Your task to perform on an android device: Open the web browser Image 0: 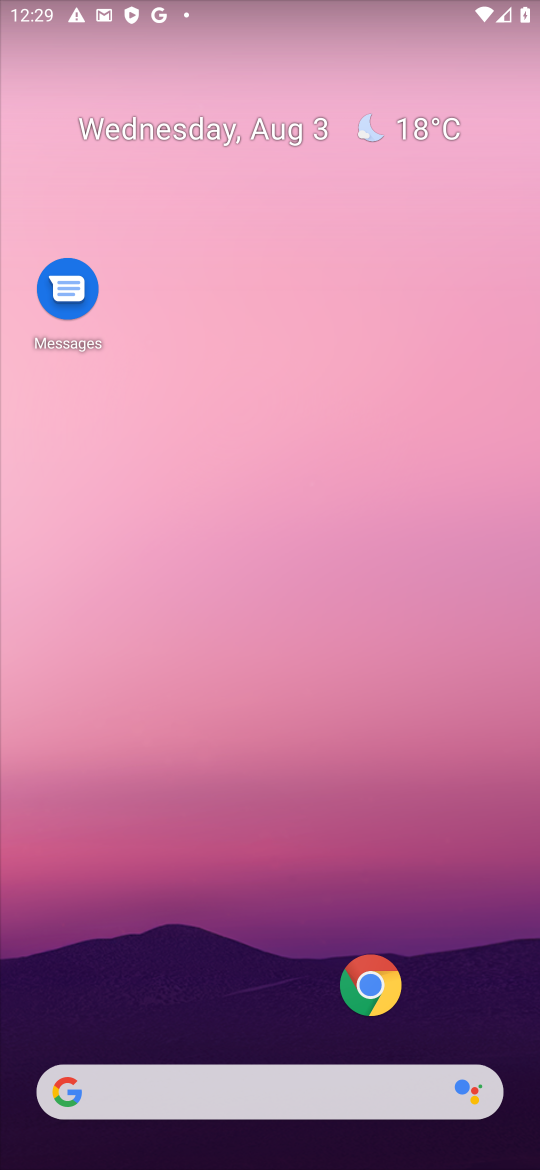
Step 0: click (350, 1003)
Your task to perform on an android device: Open the web browser Image 1: 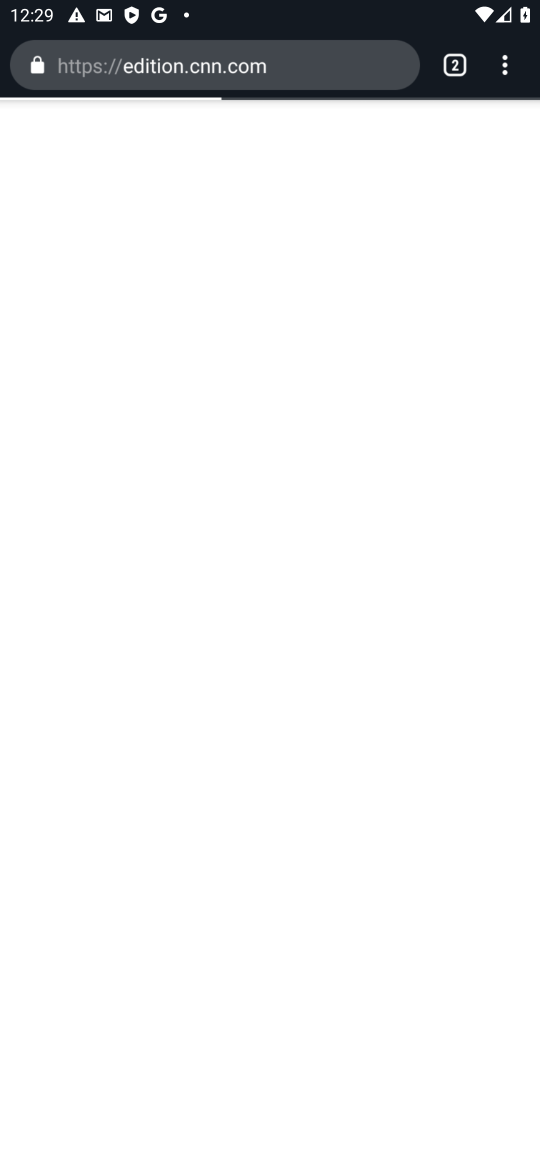
Step 1: task complete